Your task to perform on an android device: turn off smart reply in the gmail app Image 0: 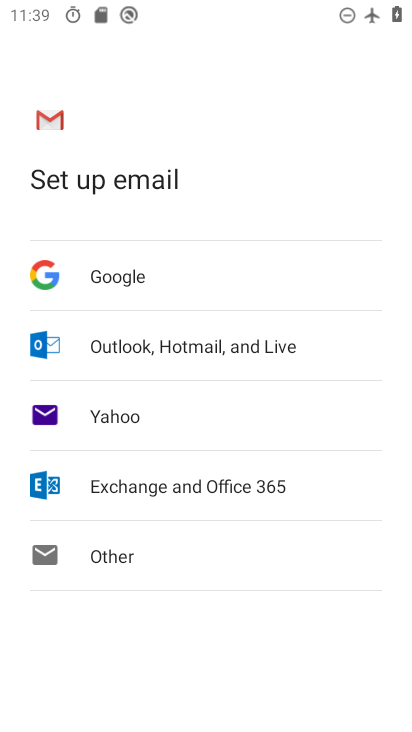
Step 0: drag from (248, 514) to (262, 185)
Your task to perform on an android device: turn off smart reply in the gmail app Image 1: 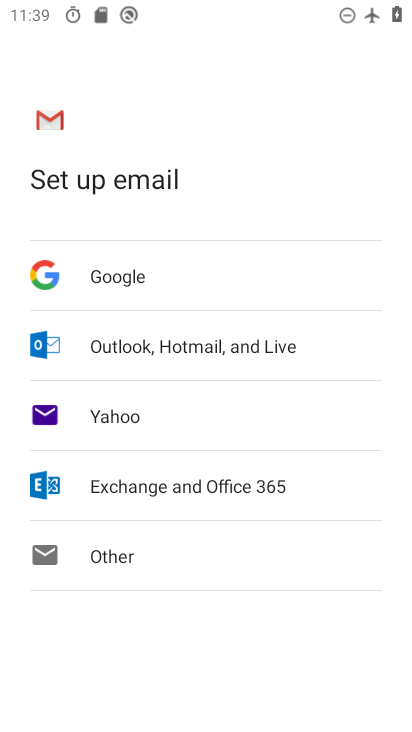
Step 1: drag from (172, 186) to (262, 597)
Your task to perform on an android device: turn off smart reply in the gmail app Image 2: 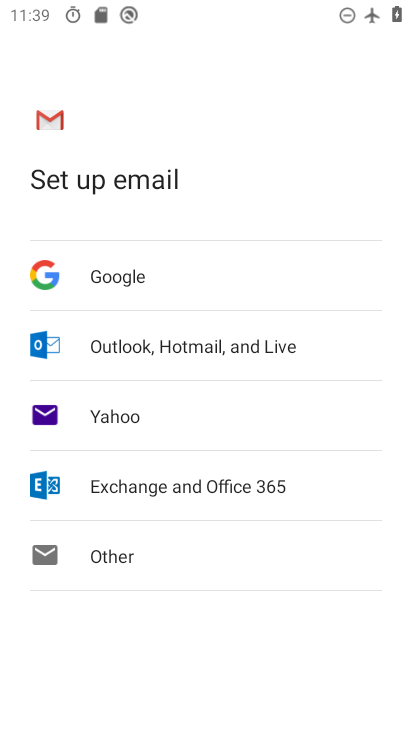
Step 2: drag from (186, 176) to (306, 675)
Your task to perform on an android device: turn off smart reply in the gmail app Image 3: 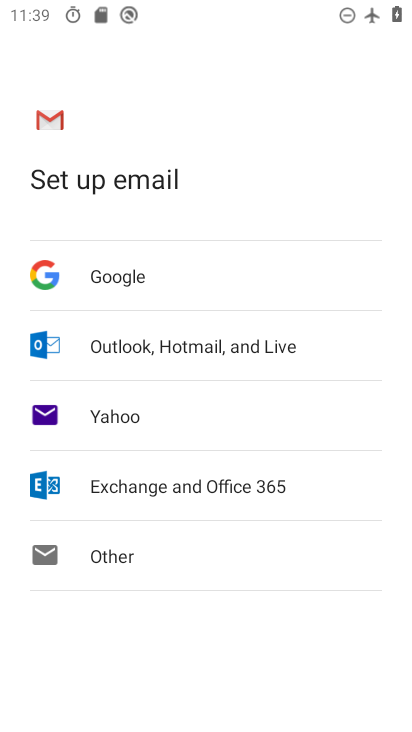
Step 3: drag from (235, 591) to (271, 170)
Your task to perform on an android device: turn off smart reply in the gmail app Image 4: 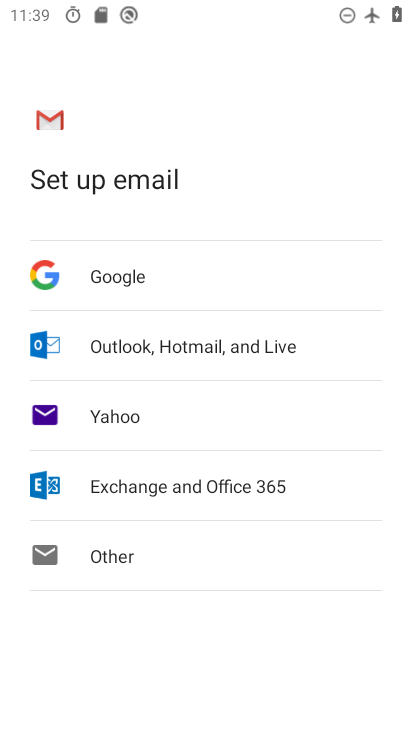
Step 4: drag from (275, 666) to (293, 268)
Your task to perform on an android device: turn off smart reply in the gmail app Image 5: 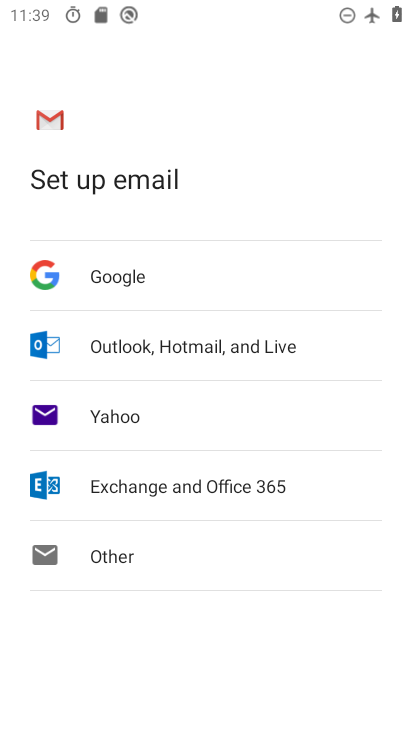
Step 5: press home button
Your task to perform on an android device: turn off smart reply in the gmail app Image 6: 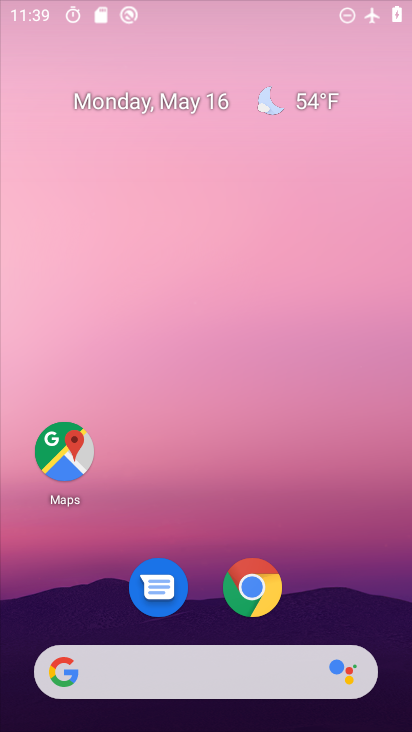
Step 6: drag from (226, 565) to (155, 0)
Your task to perform on an android device: turn off smart reply in the gmail app Image 7: 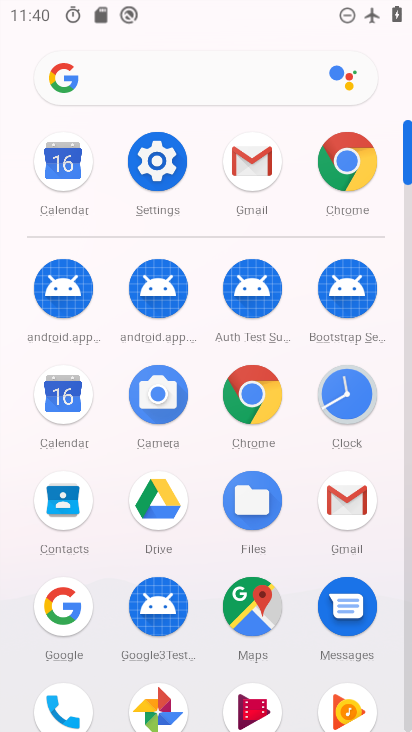
Step 7: click (251, 148)
Your task to perform on an android device: turn off smart reply in the gmail app Image 8: 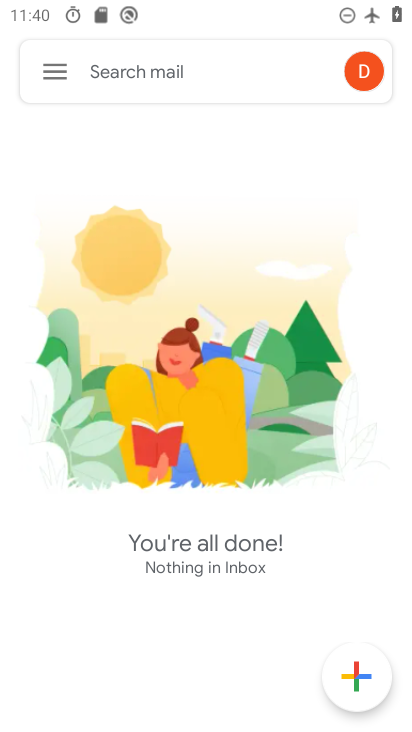
Step 8: click (53, 64)
Your task to perform on an android device: turn off smart reply in the gmail app Image 9: 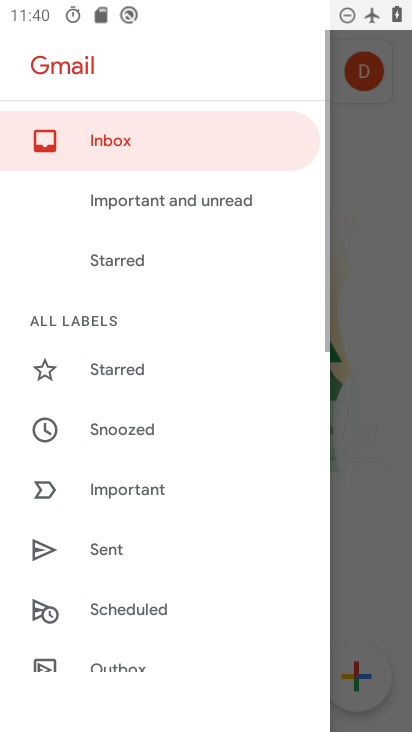
Step 9: drag from (185, 569) to (194, 201)
Your task to perform on an android device: turn off smart reply in the gmail app Image 10: 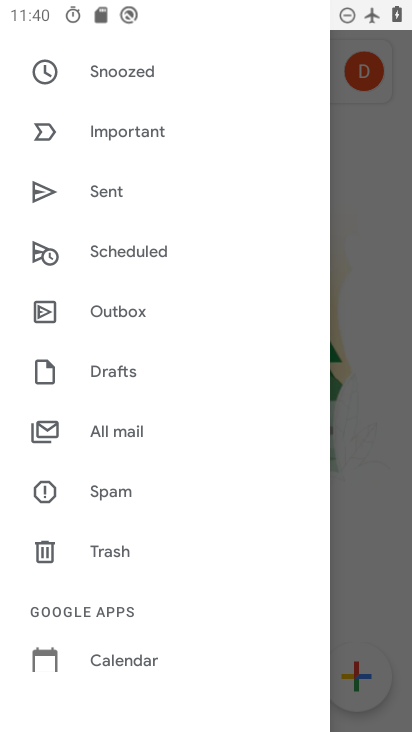
Step 10: drag from (150, 636) to (221, 96)
Your task to perform on an android device: turn off smart reply in the gmail app Image 11: 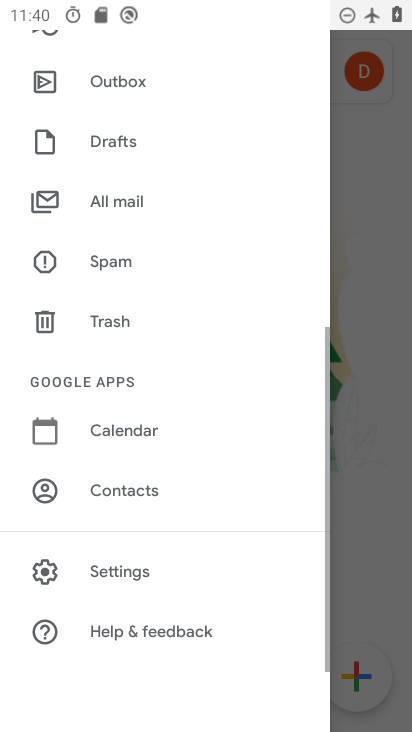
Step 11: click (131, 567)
Your task to perform on an android device: turn off smart reply in the gmail app Image 12: 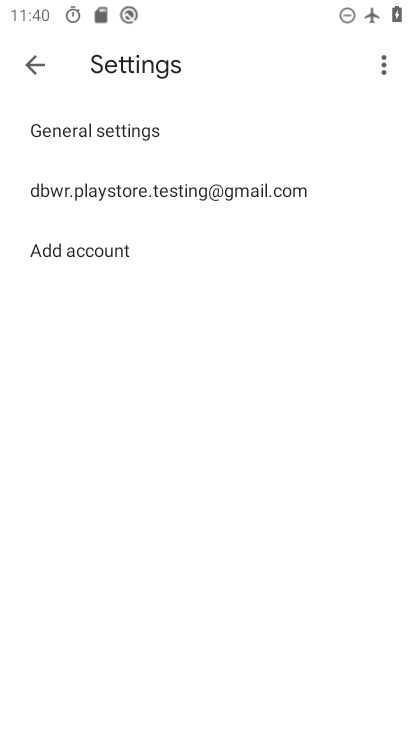
Step 12: click (167, 197)
Your task to perform on an android device: turn off smart reply in the gmail app Image 13: 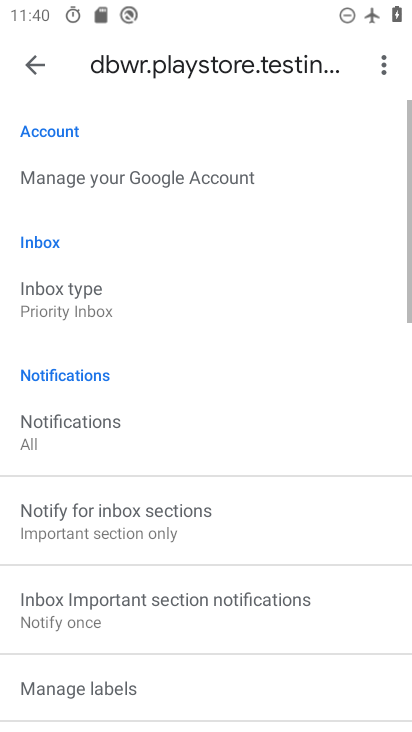
Step 13: drag from (237, 591) to (251, 113)
Your task to perform on an android device: turn off smart reply in the gmail app Image 14: 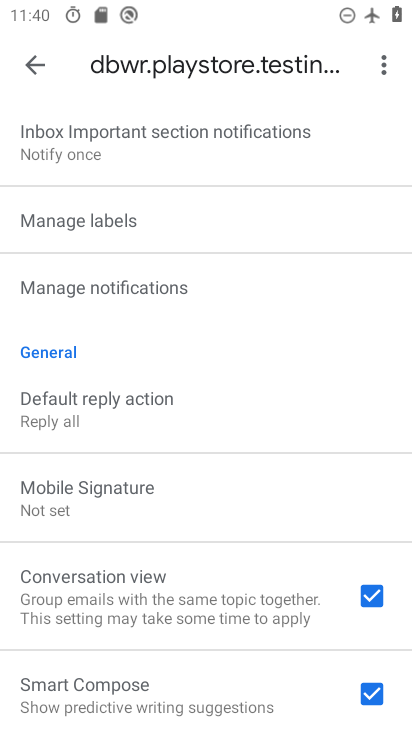
Step 14: drag from (285, 615) to (353, 47)
Your task to perform on an android device: turn off smart reply in the gmail app Image 15: 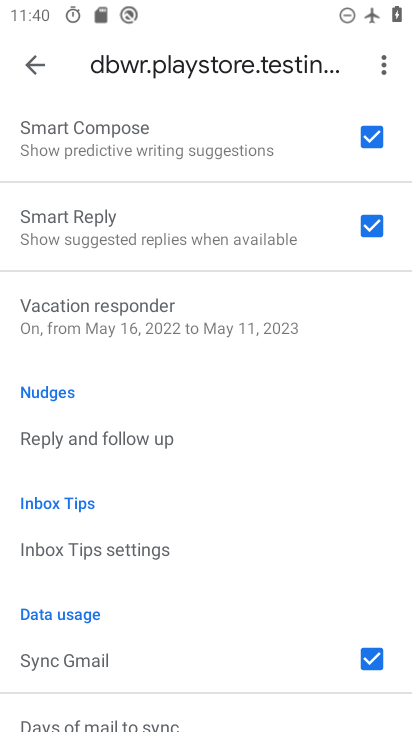
Step 15: click (335, 225)
Your task to perform on an android device: turn off smart reply in the gmail app Image 16: 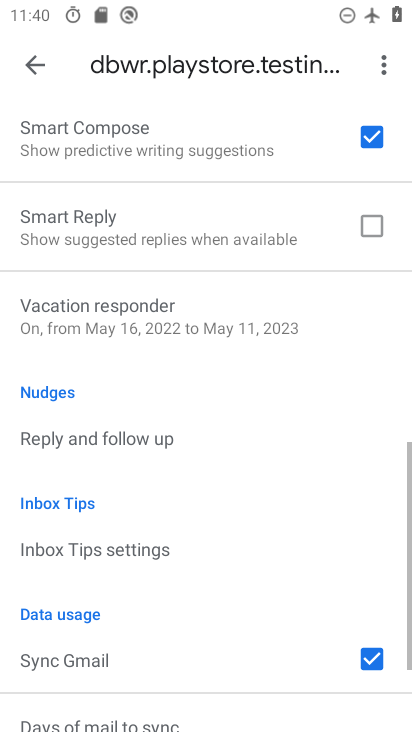
Step 16: task complete